Your task to perform on an android device: turn smart compose on in the gmail app Image 0: 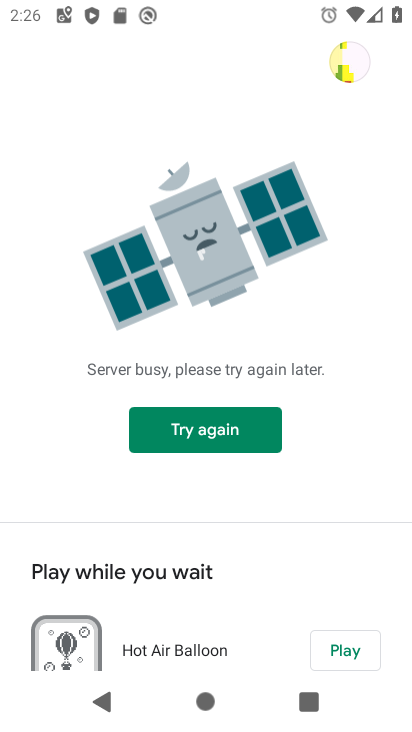
Step 0: press home button
Your task to perform on an android device: turn smart compose on in the gmail app Image 1: 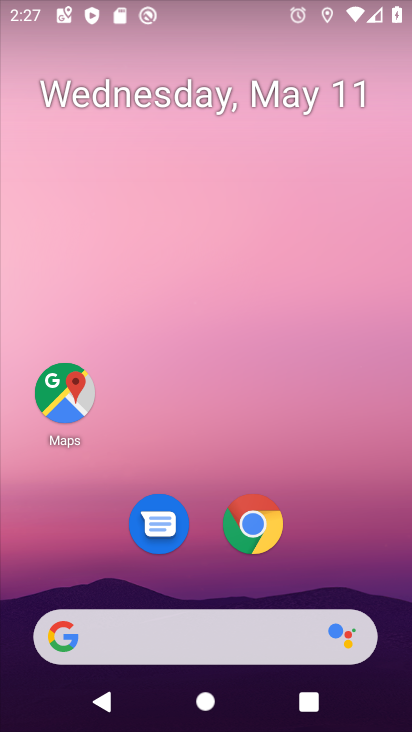
Step 1: drag from (340, 525) to (315, 84)
Your task to perform on an android device: turn smart compose on in the gmail app Image 2: 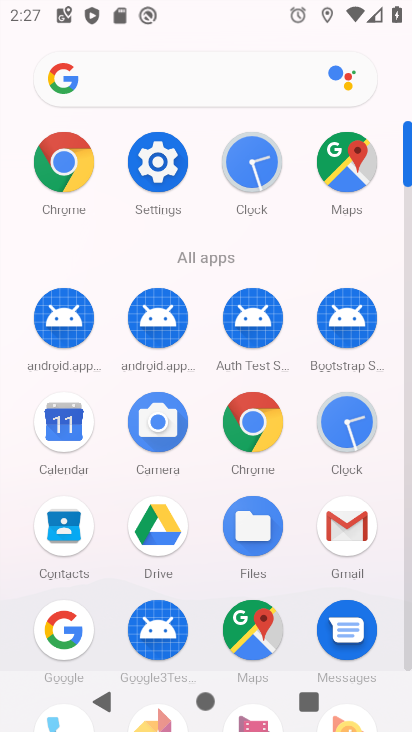
Step 2: click (338, 534)
Your task to perform on an android device: turn smart compose on in the gmail app Image 3: 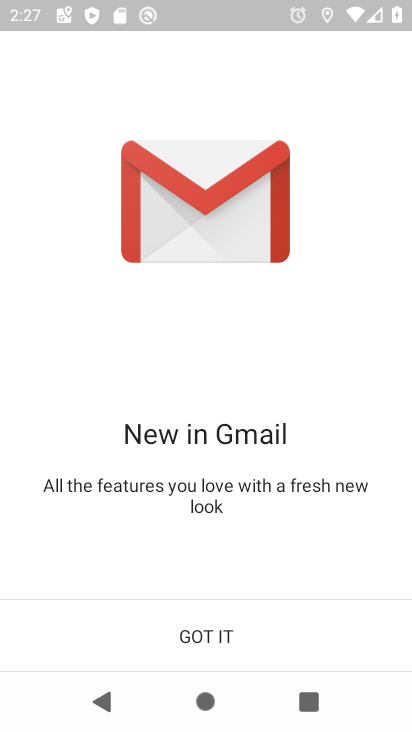
Step 3: click (248, 624)
Your task to perform on an android device: turn smart compose on in the gmail app Image 4: 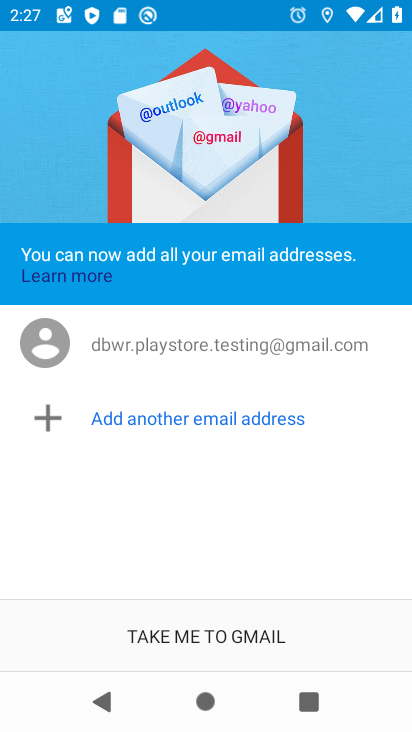
Step 4: click (248, 626)
Your task to perform on an android device: turn smart compose on in the gmail app Image 5: 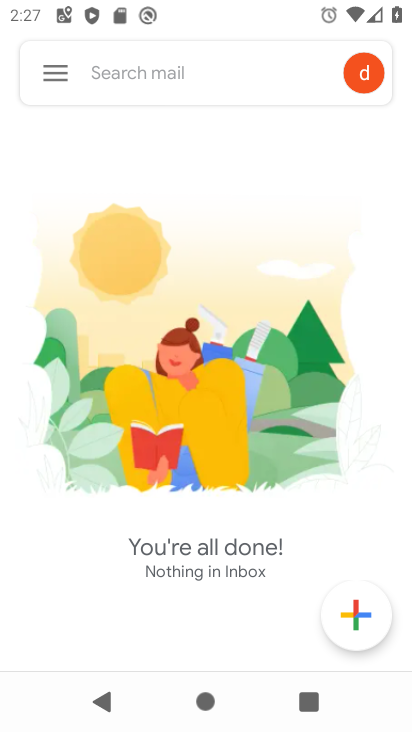
Step 5: click (51, 70)
Your task to perform on an android device: turn smart compose on in the gmail app Image 6: 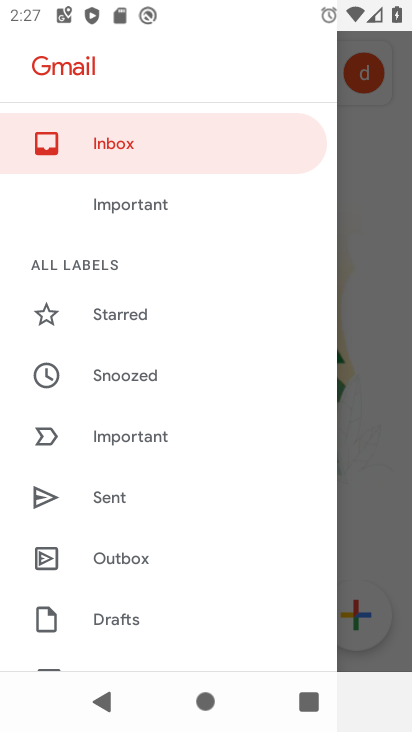
Step 6: drag from (196, 491) to (196, 231)
Your task to perform on an android device: turn smart compose on in the gmail app Image 7: 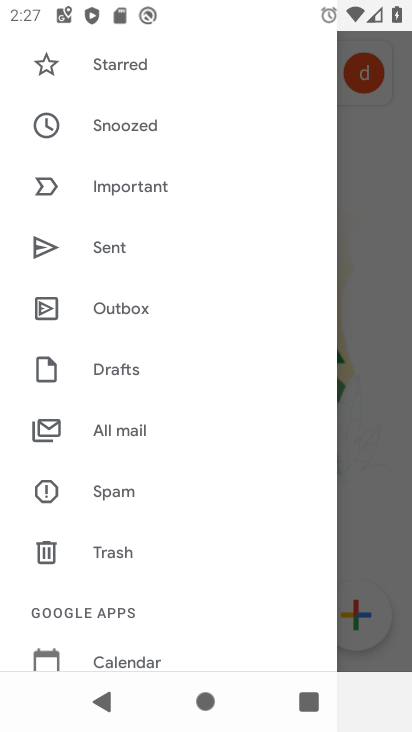
Step 7: drag from (194, 560) to (168, 93)
Your task to perform on an android device: turn smart compose on in the gmail app Image 8: 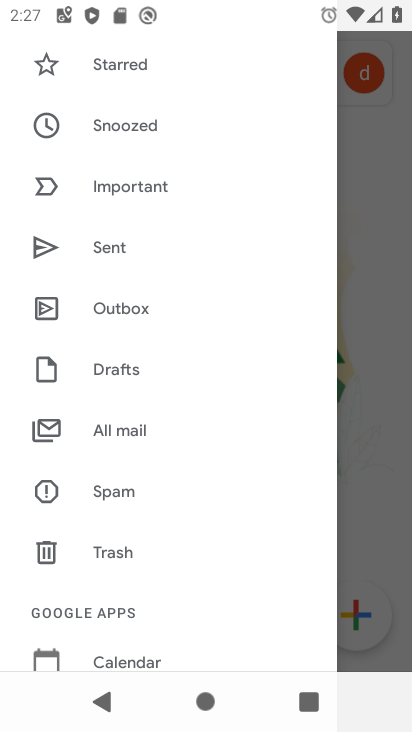
Step 8: drag from (152, 601) to (162, 243)
Your task to perform on an android device: turn smart compose on in the gmail app Image 9: 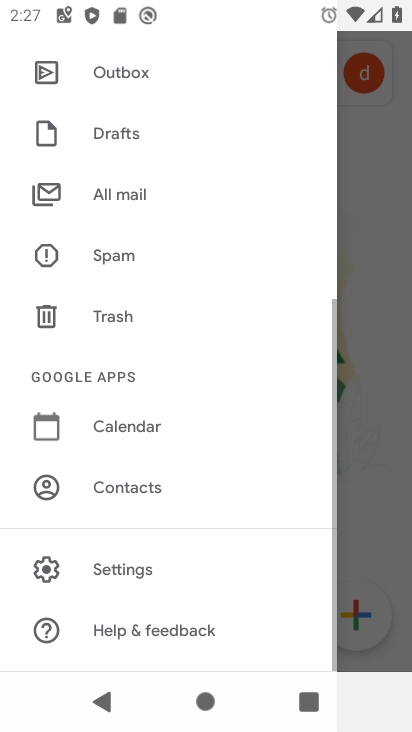
Step 9: click (140, 563)
Your task to perform on an android device: turn smart compose on in the gmail app Image 10: 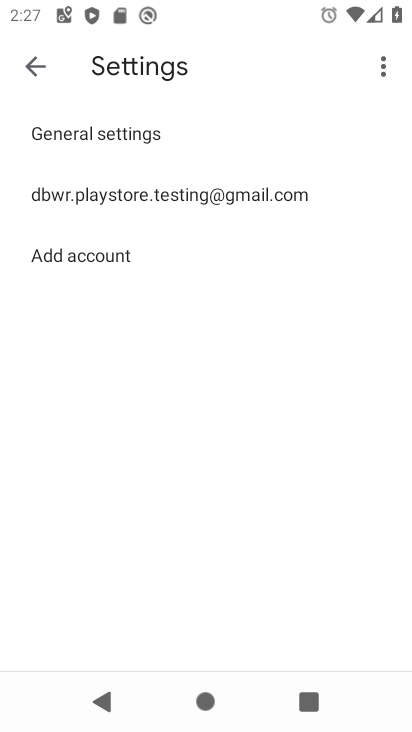
Step 10: click (247, 182)
Your task to perform on an android device: turn smart compose on in the gmail app Image 11: 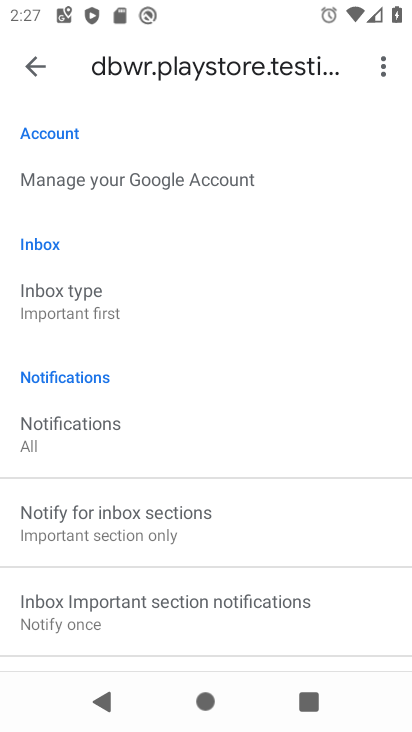
Step 11: task complete